Your task to perform on an android device: Go to wifi settings Image 0: 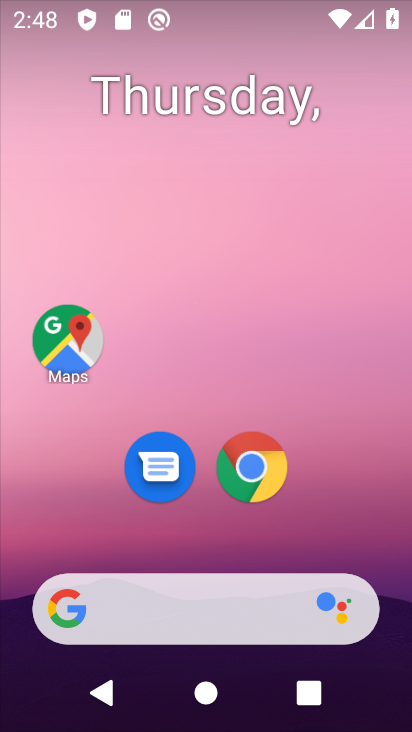
Step 0: drag from (147, 598) to (169, 52)
Your task to perform on an android device: Go to wifi settings Image 1: 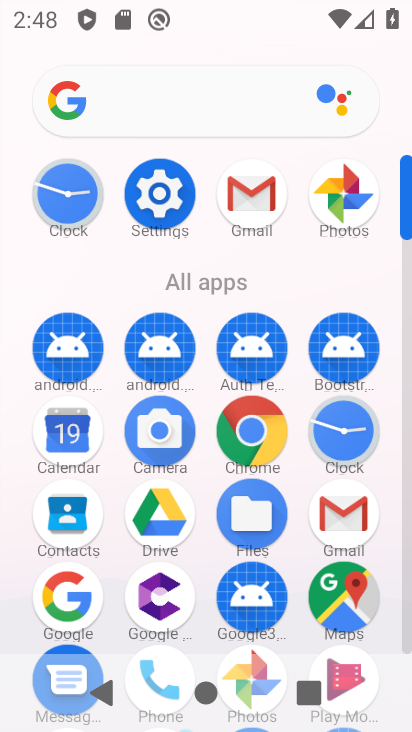
Step 1: click (155, 196)
Your task to perform on an android device: Go to wifi settings Image 2: 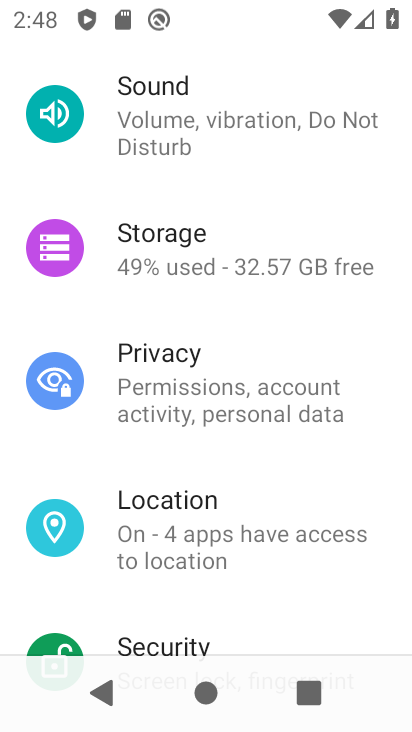
Step 2: drag from (166, 129) to (232, 705)
Your task to perform on an android device: Go to wifi settings Image 3: 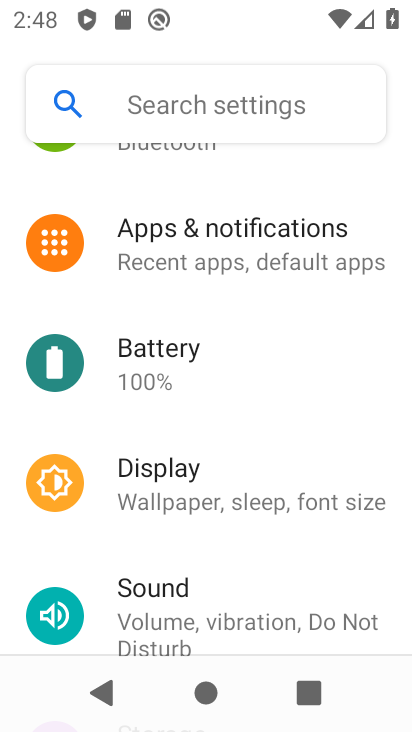
Step 3: drag from (166, 173) to (258, 617)
Your task to perform on an android device: Go to wifi settings Image 4: 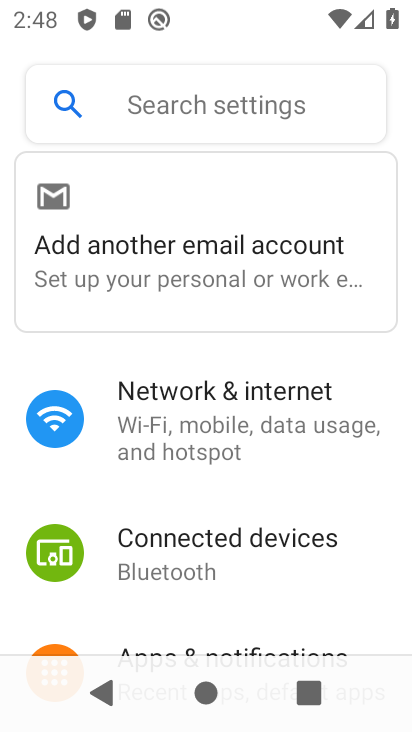
Step 4: click (168, 417)
Your task to perform on an android device: Go to wifi settings Image 5: 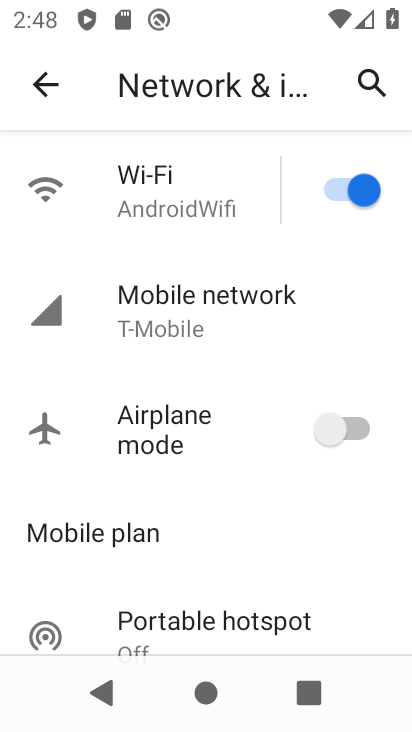
Step 5: click (175, 180)
Your task to perform on an android device: Go to wifi settings Image 6: 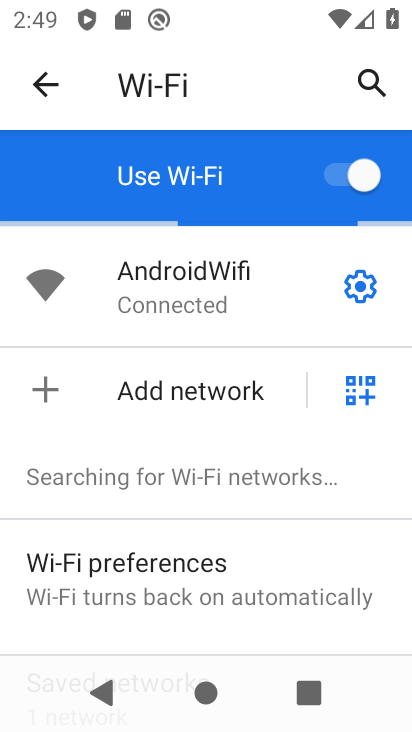
Step 6: task complete